Your task to perform on an android device: set the stopwatch Image 0: 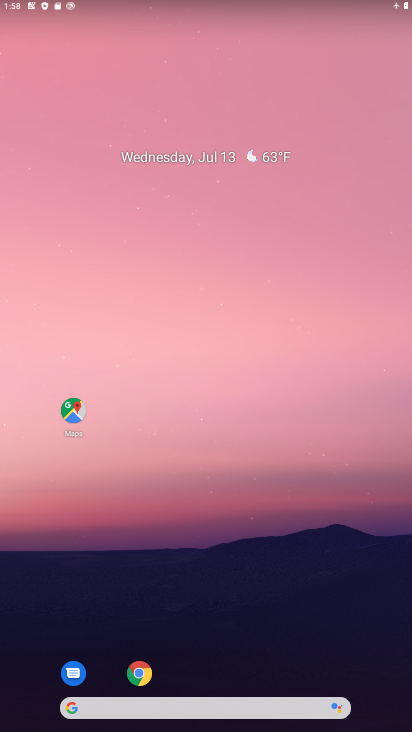
Step 0: drag from (297, 635) to (287, 272)
Your task to perform on an android device: set the stopwatch Image 1: 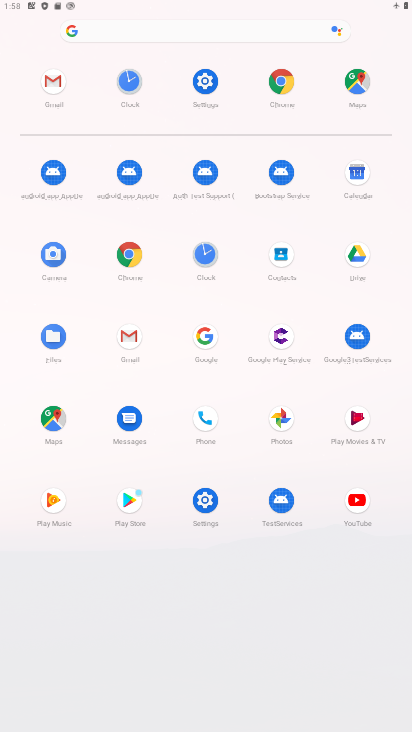
Step 1: click (208, 241)
Your task to perform on an android device: set the stopwatch Image 2: 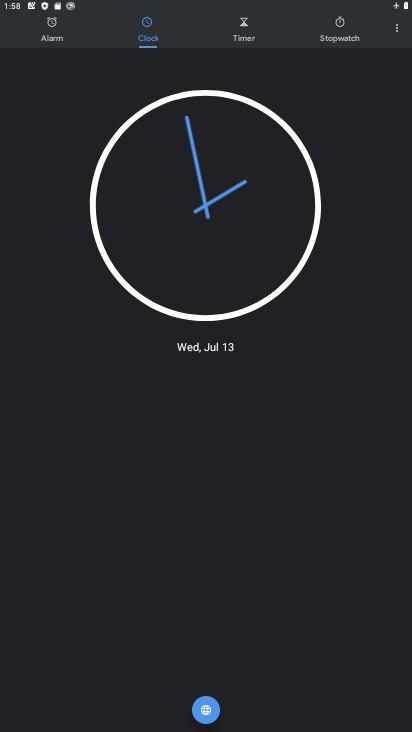
Step 2: click (345, 31)
Your task to perform on an android device: set the stopwatch Image 3: 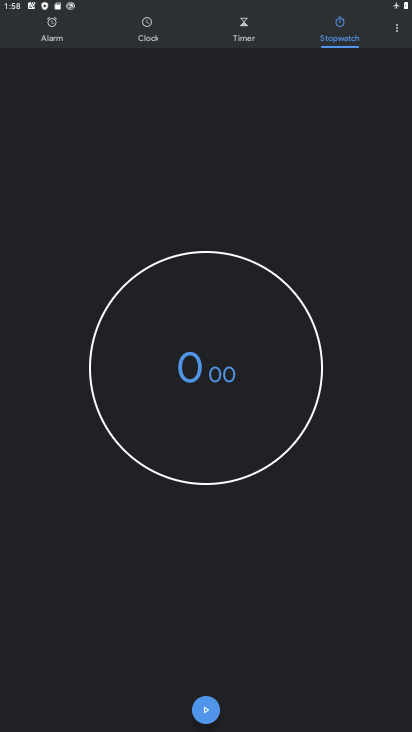
Step 3: task complete